Your task to perform on an android device: Show me popular videos on Youtube Image 0: 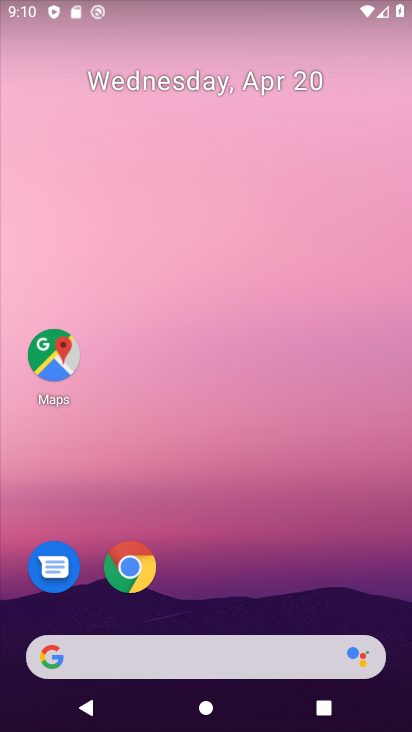
Step 0: drag from (358, 584) to (376, 191)
Your task to perform on an android device: Show me popular videos on Youtube Image 1: 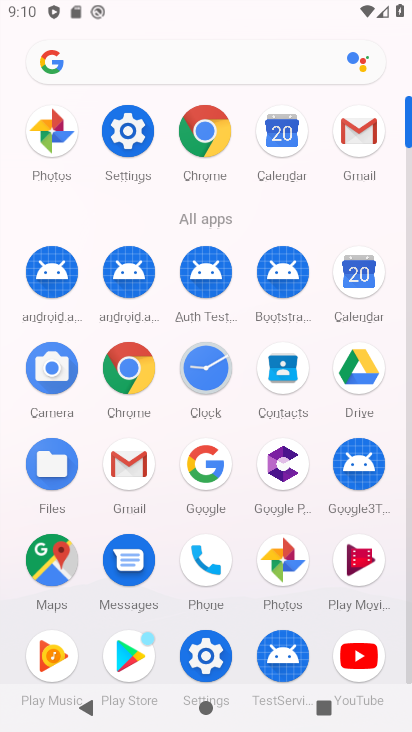
Step 1: click (356, 666)
Your task to perform on an android device: Show me popular videos on Youtube Image 2: 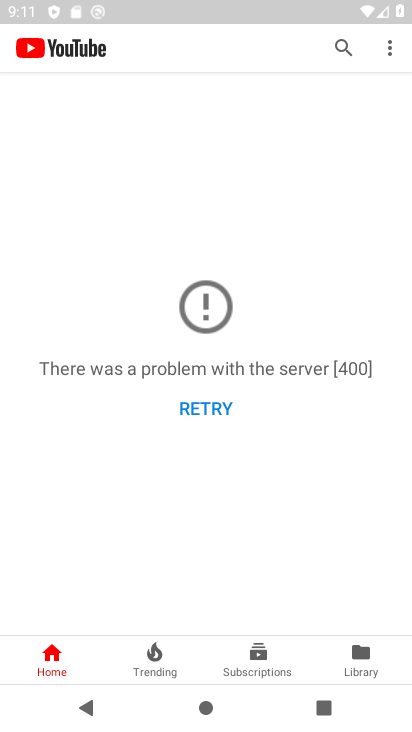
Step 2: click (219, 410)
Your task to perform on an android device: Show me popular videos on Youtube Image 3: 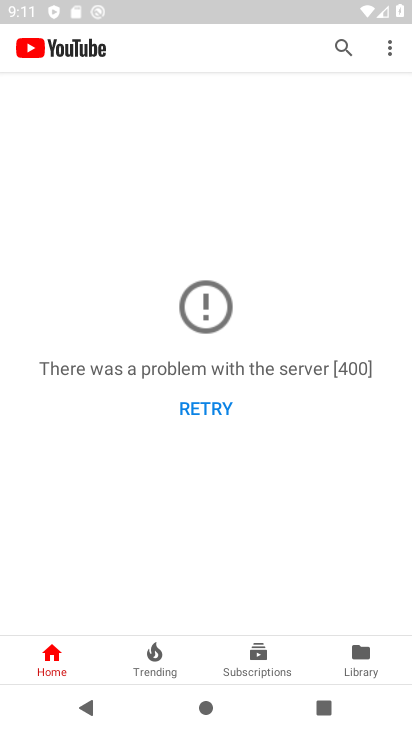
Step 3: task complete